Your task to perform on an android device: Go to privacy settings Image 0: 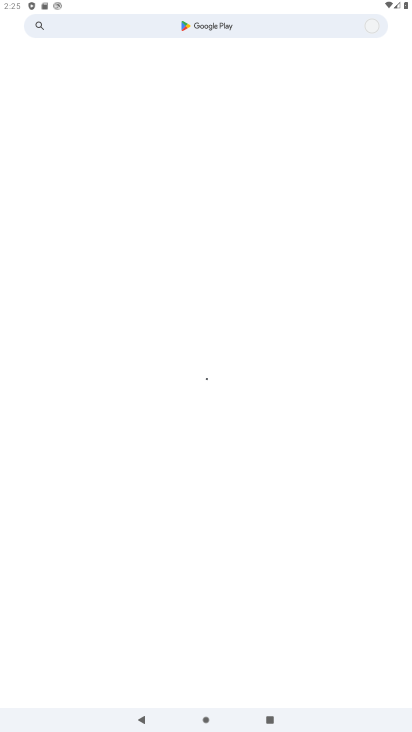
Step 0: press home button
Your task to perform on an android device: Go to privacy settings Image 1: 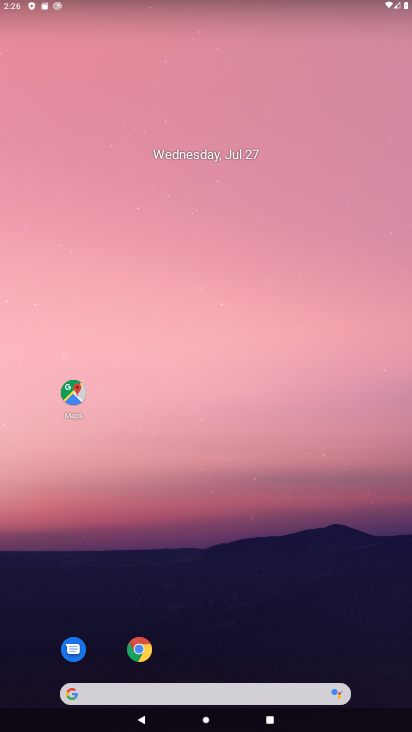
Step 1: drag from (330, 602) to (83, 3)
Your task to perform on an android device: Go to privacy settings Image 2: 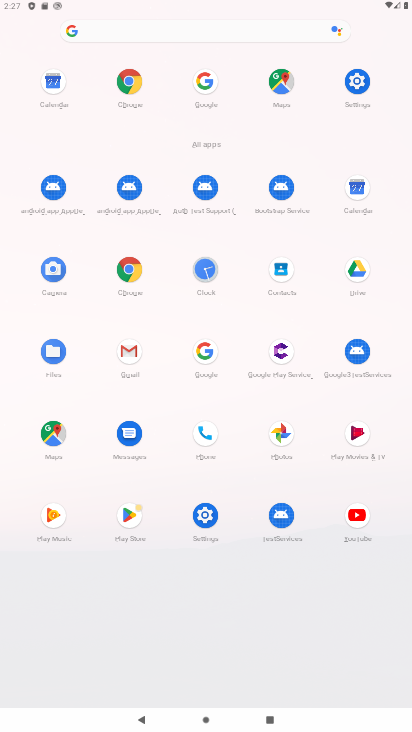
Step 2: click (204, 505)
Your task to perform on an android device: Go to privacy settings Image 3: 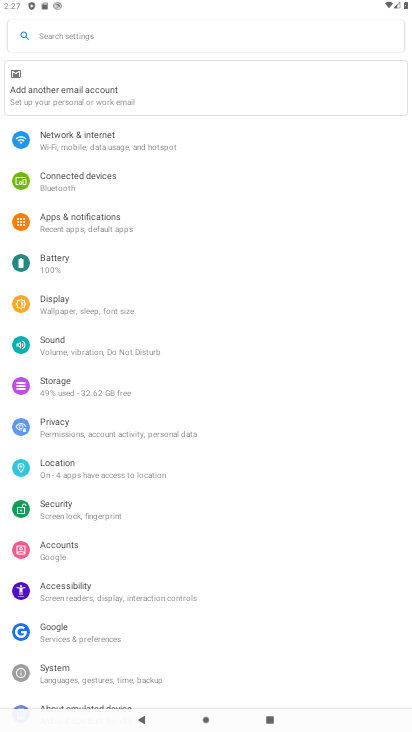
Step 3: click (66, 420)
Your task to perform on an android device: Go to privacy settings Image 4: 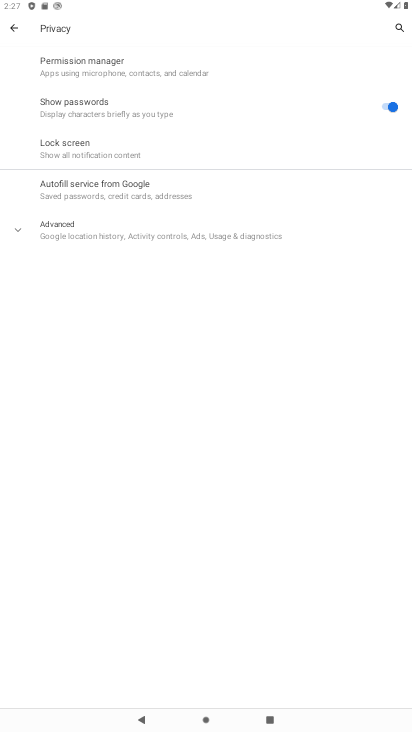
Step 4: task complete